Your task to perform on an android device: turn on airplane mode Image 0: 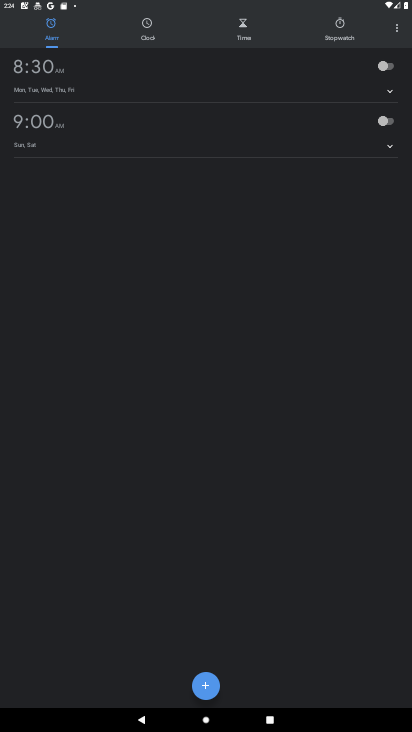
Step 0: drag from (311, 636) to (339, 51)
Your task to perform on an android device: turn on airplane mode Image 1: 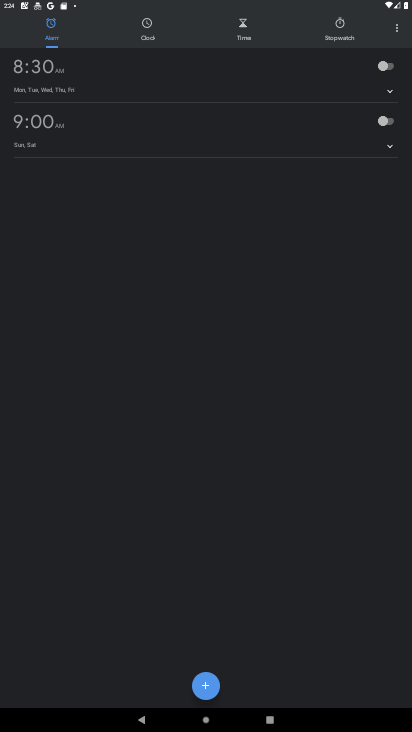
Step 1: press home button
Your task to perform on an android device: turn on airplane mode Image 2: 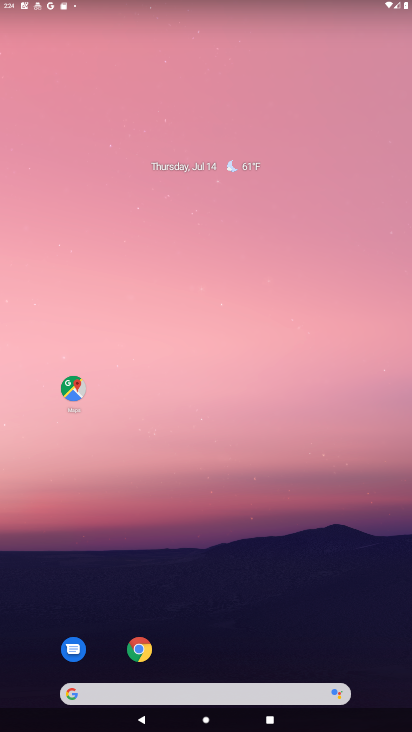
Step 2: drag from (123, 1) to (217, 709)
Your task to perform on an android device: turn on airplane mode Image 3: 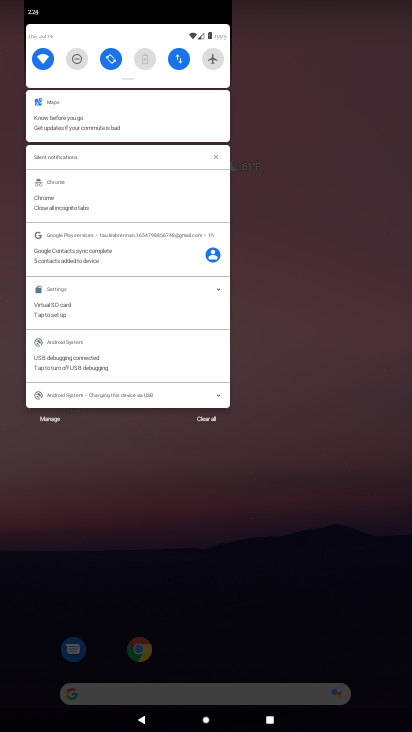
Step 3: drag from (151, 75) to (170, 686)
Your task to perform on an android device: turn on airplane mode Image 4: 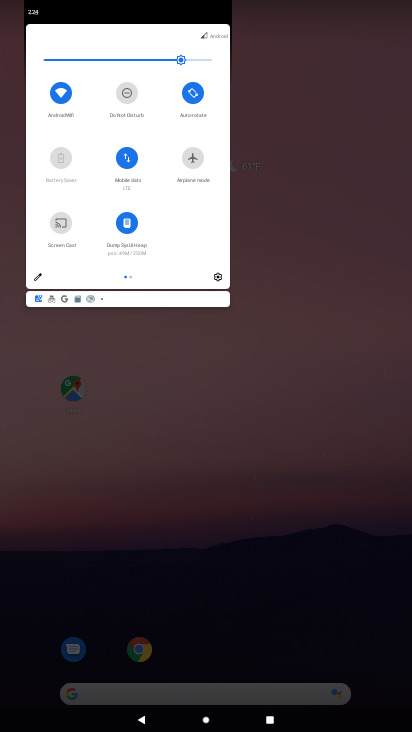
Step 4: click (191, 162)
Your task to perform on an android device: turn on airplane mode Image 5: 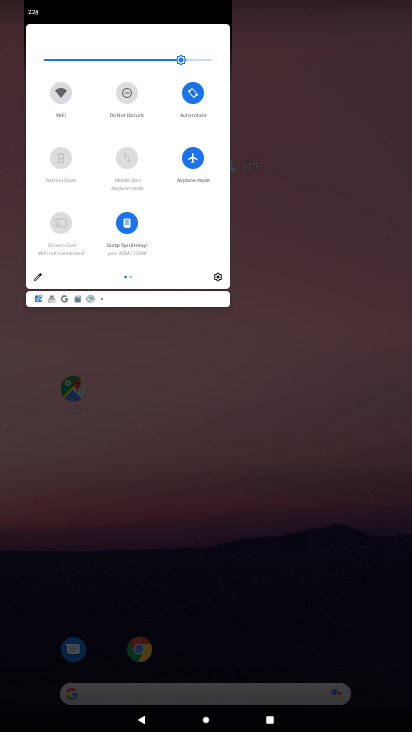
Step 5: task complete